Your task to perform on an android device: Go to wifi settings Image 0: 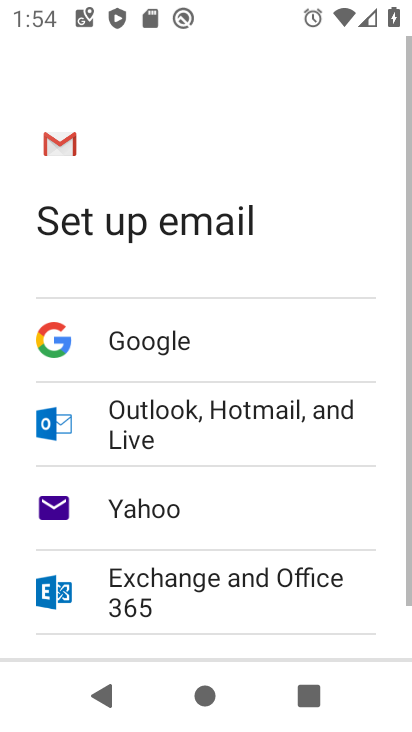
Step 0: press home button
Your task to perform on an android device: Go to wifi settings Image 1: 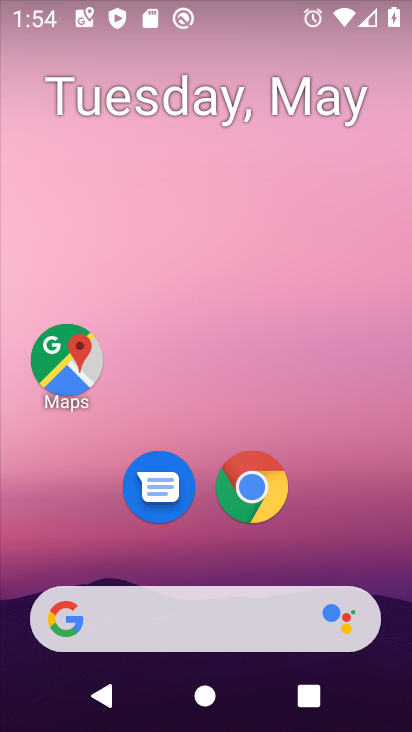
Step 1: drag from (370, 544) to (370, 127)
Your task to perform on an android device: Go to wifi settings Image 2: 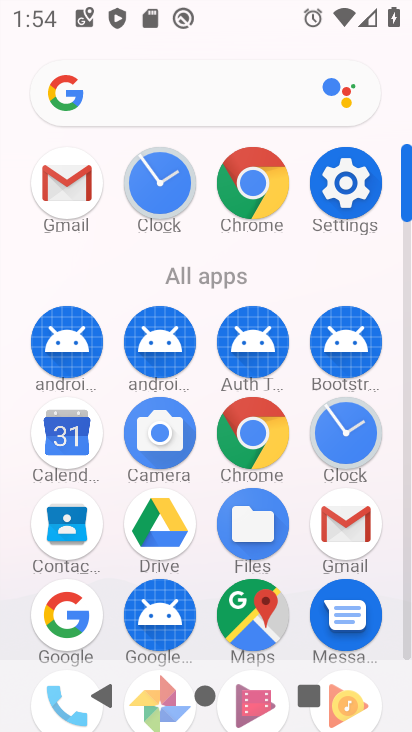
Step 2: click (351, 209)
Your task to perform on an android device: Go to wifi settings Image 3: 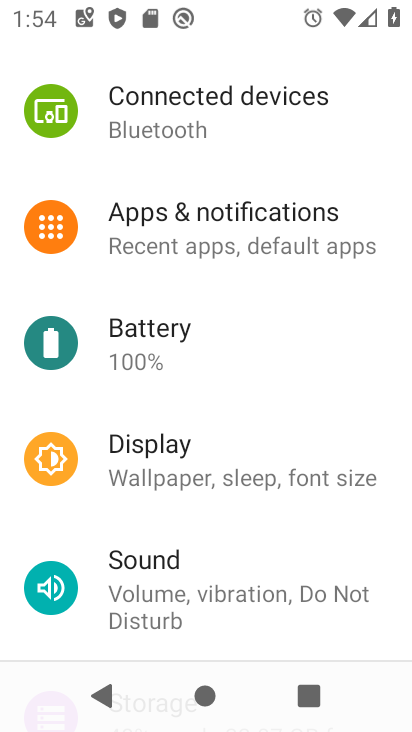
Step 3: drag from (345, 529) to (364, 376)
Your task to perform on an android device: Go to wifi settings Image 4: 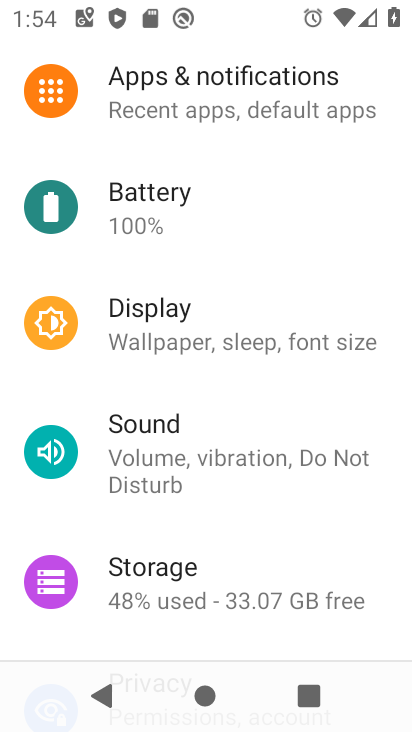
Step 4: drag from (362, 552) to (366, 395)
Your task to perform on an android device: Go to wifi settings Image 5: 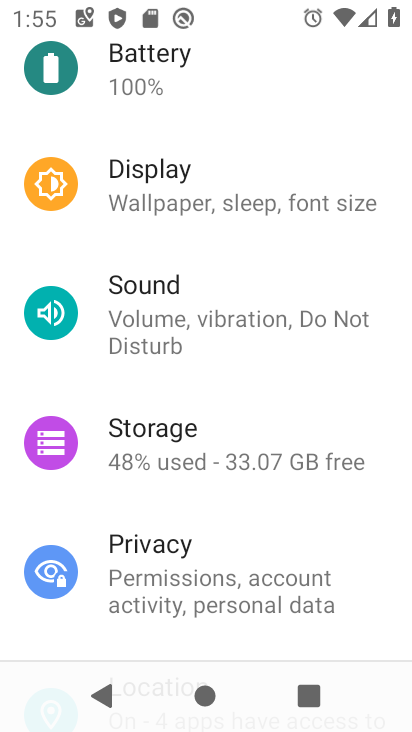
Step 5: drag from (352, 562) to (364, 315)
Your task to perform on an android device: Go to wifi settings Image 6: 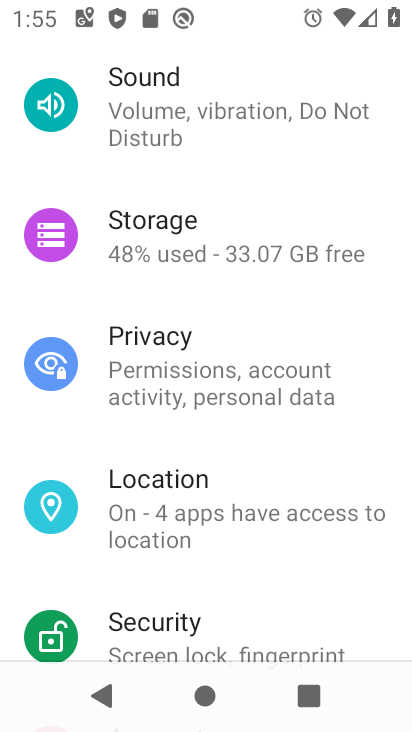
Step 6: drag from (379, 185) to (375, 351)
Your task to perform on an android device: Go to wifi settings Image 7: 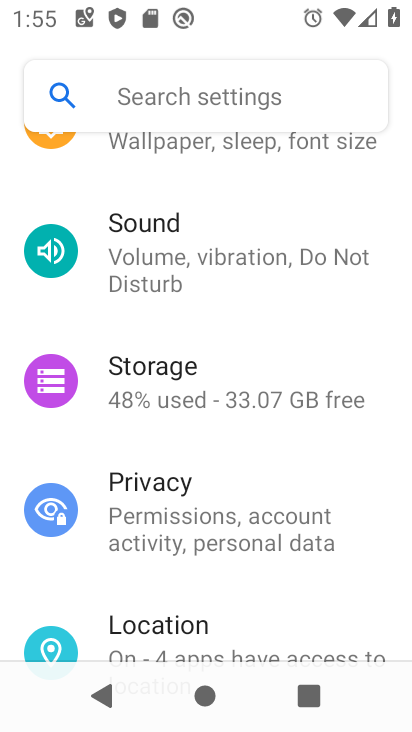
Step 7: drag from (375, 199) to (377, 376)
Your task to perform on an android device: Go to wifi settings Image 8: 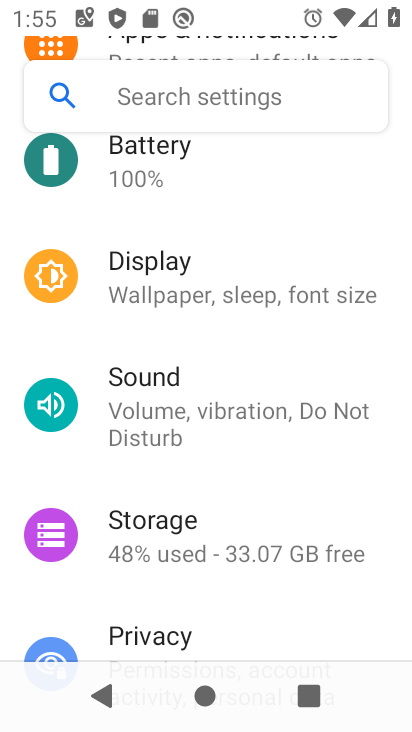
Step 8: drag from (367, 217) to (368, 373)
Your task to perform on an android device: Go to wifi settings Image 9: 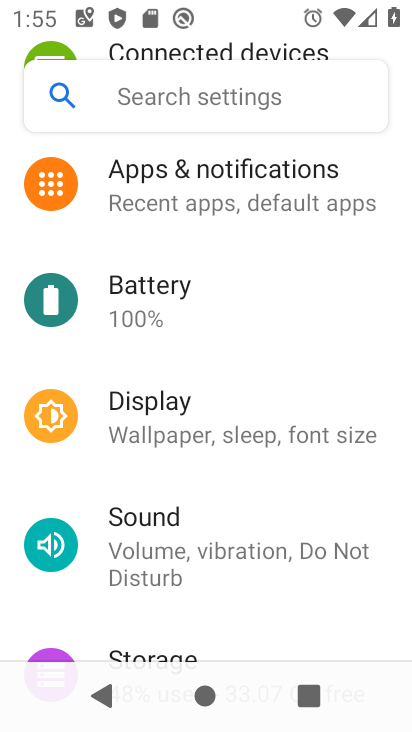
Step 9: drag from (375, 168) to (377, 376)
Your task to perform on an android device: Go to wifi settings Image 10: 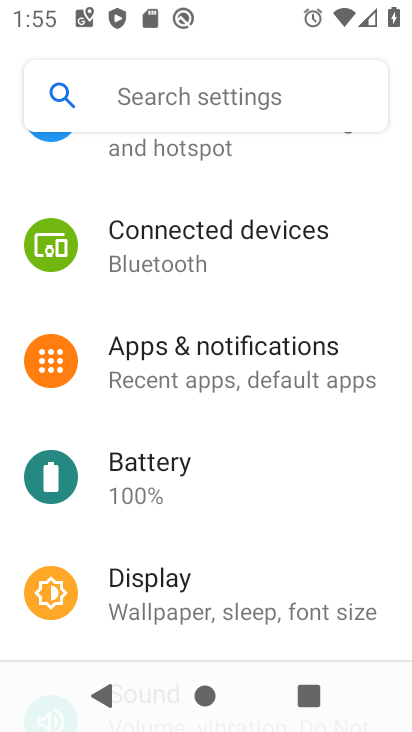
Step 10: drag from (364, 190) to (371, 321)
Your task to perform on an android device: Go to wifi settings Image 11: 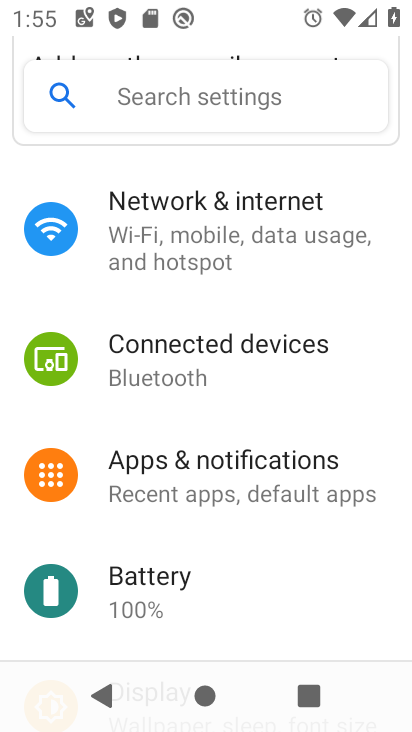
Step 11: click (305, 227)
Your task to perform on an android device: Go to wifi settings Image 12: 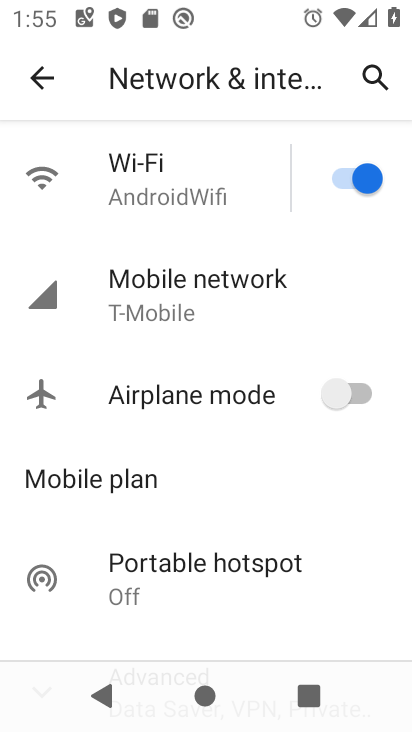
Step 12: click (162, 186)
Your task to perform on an android device: Go to wifi settings Image 13: 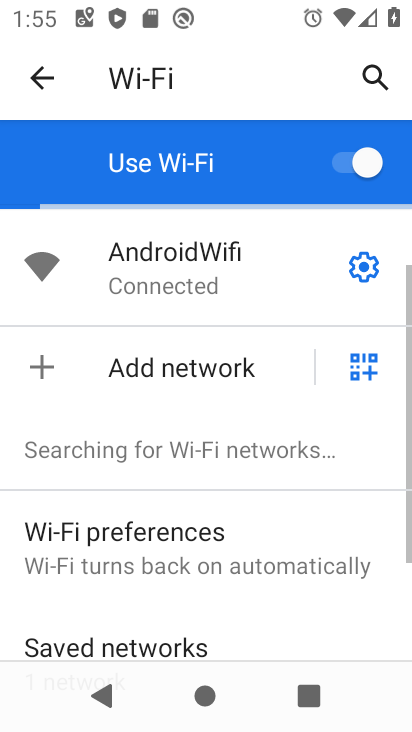
Step 13: task complete